Your task to perform on an android device: turn pop-ups on in chrome Image 0: 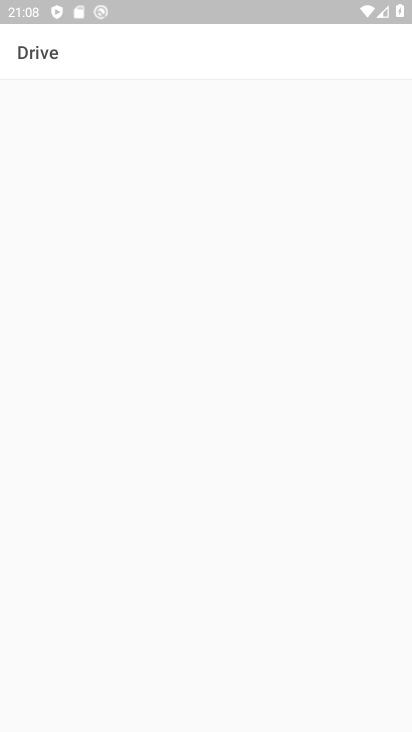
Step 0: drag from (240, 594) to (338, 188)
Your task to perform on an android device: turn pop-ups on in chrome Image 1: 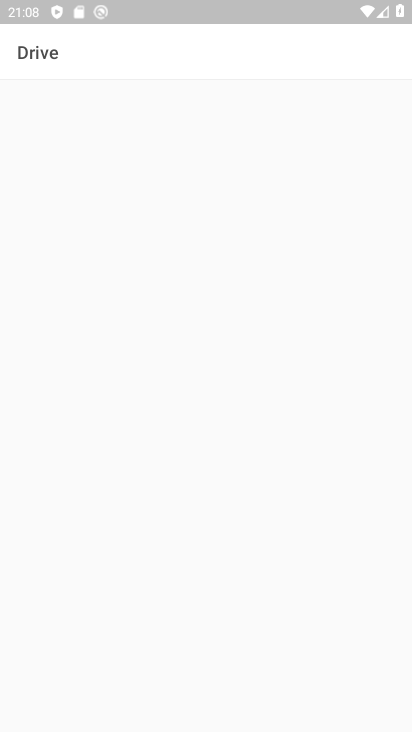
Step 1: press home button
Your task to perform on an android device: turn pop-ups on in chrome Image 2: 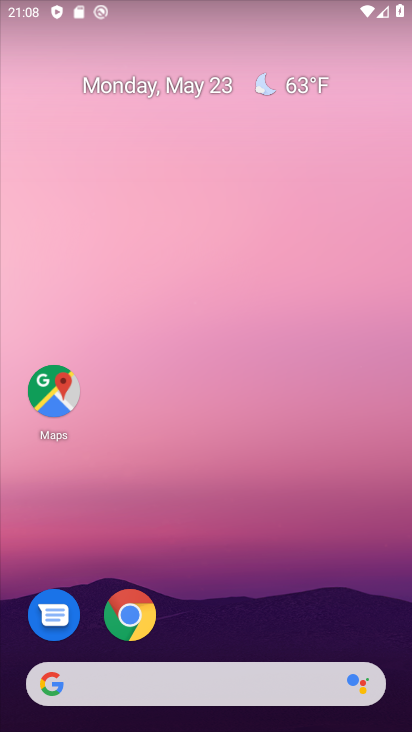
Step 2: click (132, 616)
Your task to perform on an android device: turn pop-ups on in chrome Image 3: 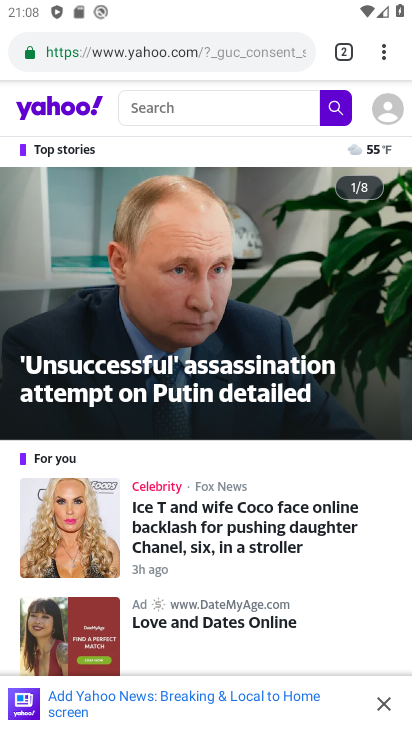
Step 3: click (381, 57)
Your task to perform on an android device: turn pop-ups on in chrome Image 4: 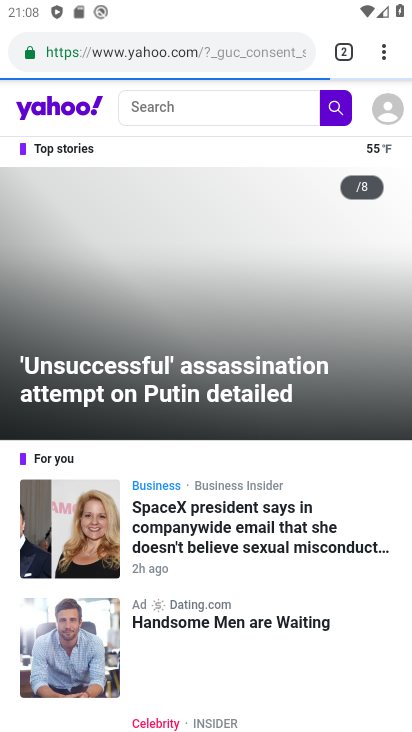
Step 4: click (373, 50)
Your task to perform on an android device: turn pop-ups on in chrome Image 5: 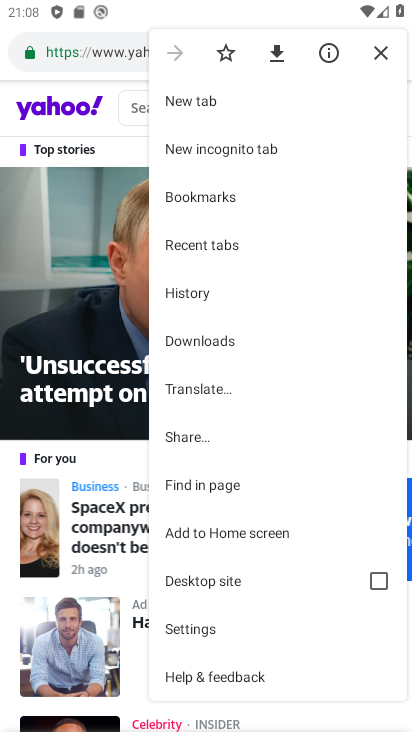
Step 5: click (193, 639)
Your task to perform on an android device: turn pop-ups on in chrome Image 6: 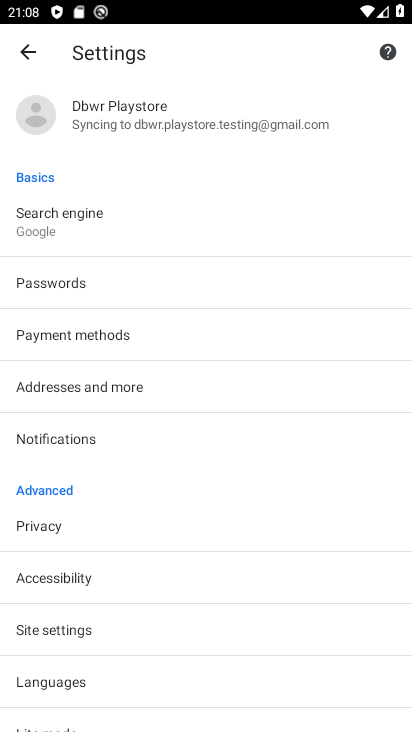
Step 6: click (56, 640)
Your task to perform on an android device: turn pop-ups on in chrome Image 7: 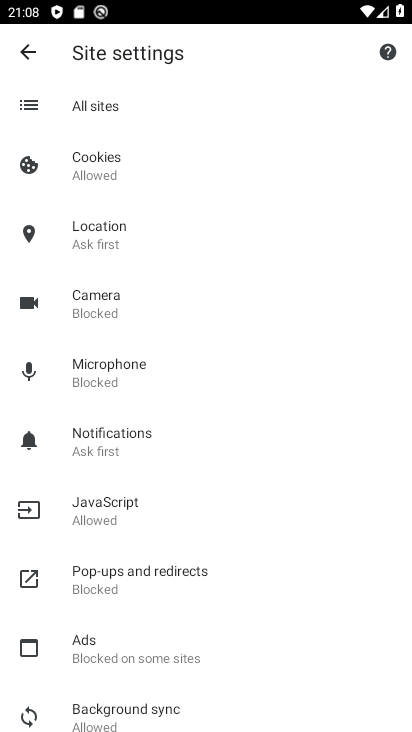
Step 7: click (112, 586)
Your task to perform on an android device: turn pop-ups on in chrome Image 8: 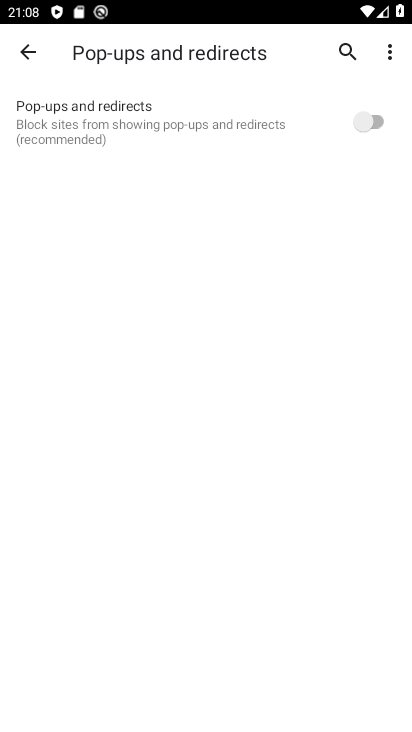
Step 8: click (377, 120)
Your task to perform on an android device: turn pop-ups on in chrome Image 9: 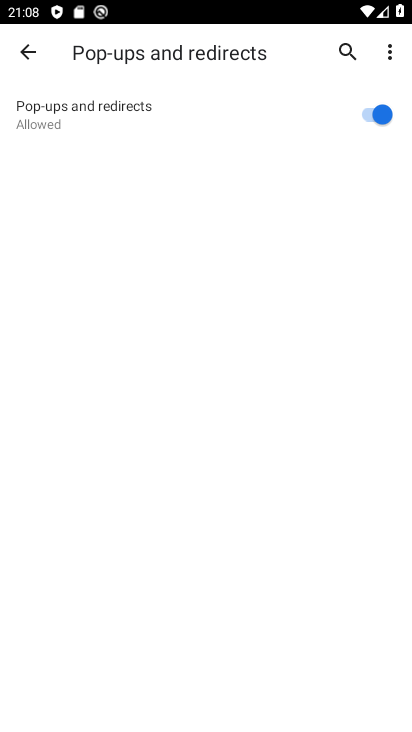
Step 9: task complete